Your task to perform on an android device: turn on improve location accuracy Image 0: 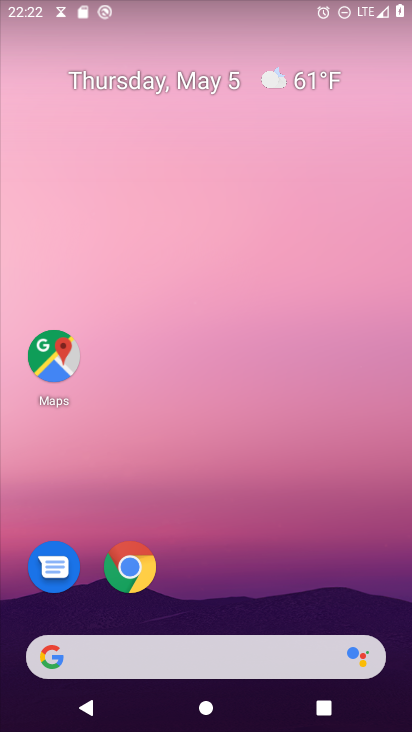
Step 0: drag from (235, 728) to (235, 152)
Your task to perform on an android device: turn on improve location accuracy Image 1: 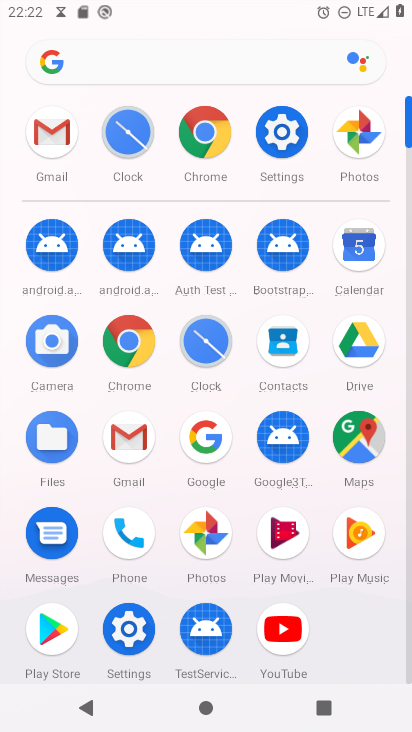
Step 1: click (279, 140)
Your task to perform on an android device: turn on improve location accuracy Image 2: 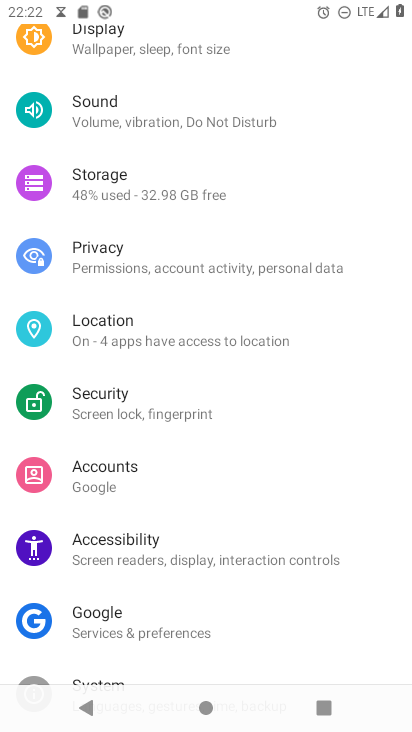
Step 2: click (159, 337)
Your task to perform on an android device: turn on improve location accuracy Image 3: 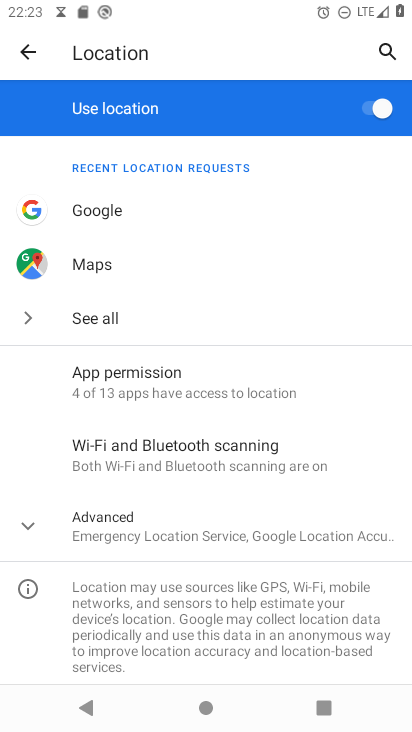
Step 3: click (145, 528)
Your task to perform on an android device: turn on improve location accuracy Image 4: 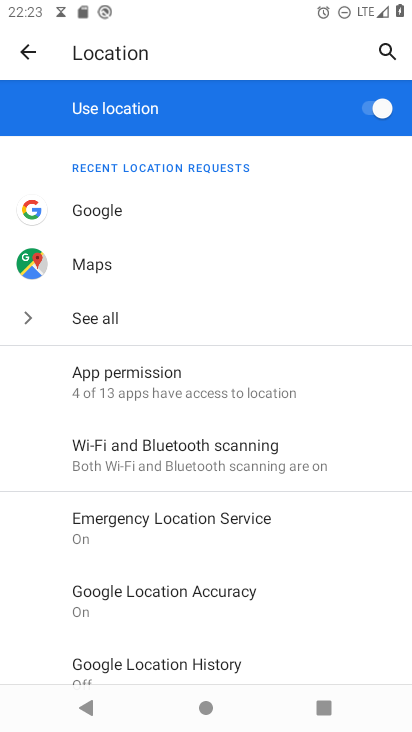
Step 4: drag from (207, 641) to (200, 483)
Your task to perform on an android device: turn on improve location accuracy Image 5: 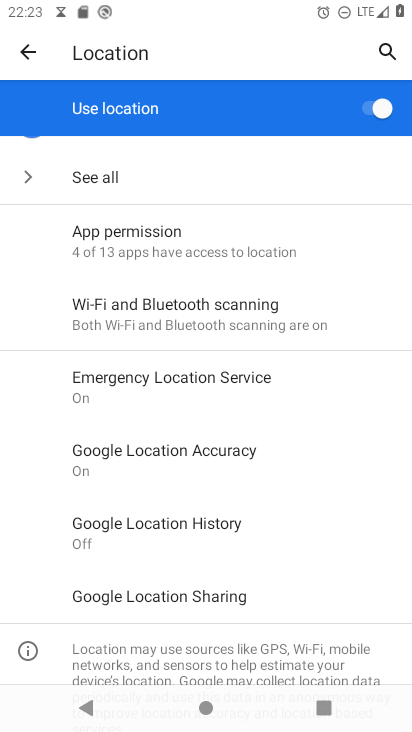
Step 5: click (157, 446)
Your task to perform on an android device: turn on improve location accuracy Image 6: 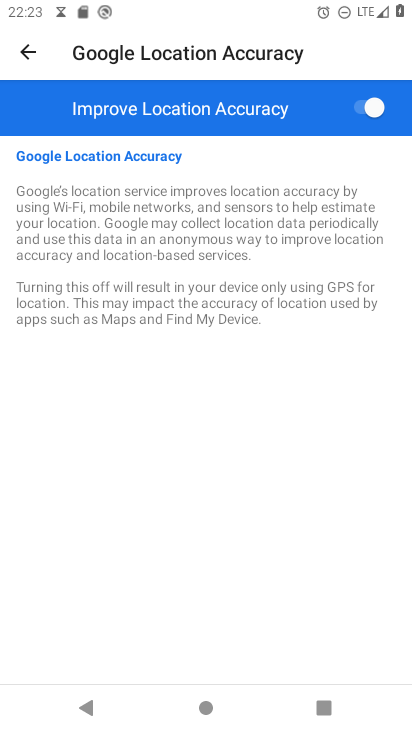
Step 6: task complete